Your task to perform on an android device: toggle translation in the chrome app Image 0: 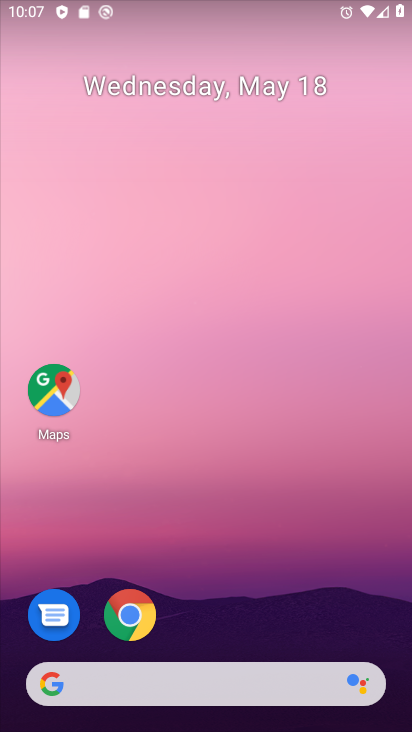
Step 0: click (126, 615)
Your task to perform on an android device: toggle translation in the chrome app Image 1: 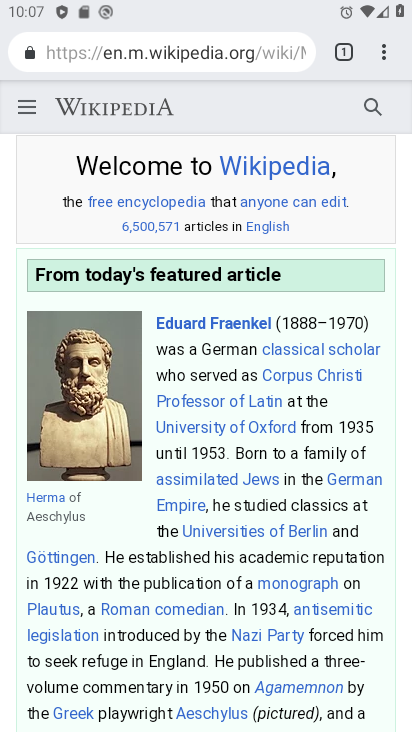
Step 1: click (386, 47)
Your task to perform on an android device: toggle translation in the chrome app Image 2: 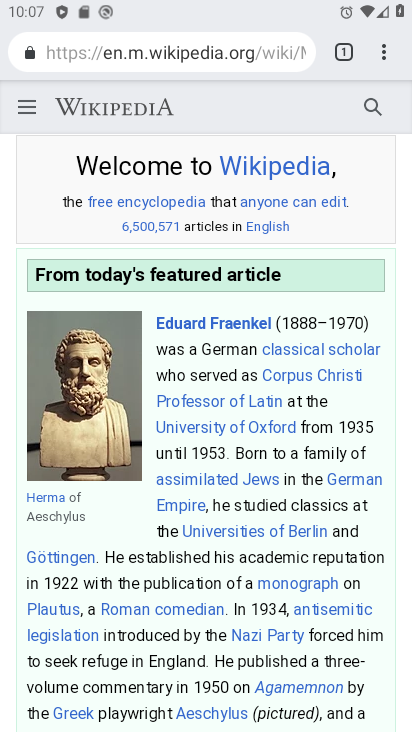
Step 2: click (384, 50)
Your task to perform on an android device: toggle translation in the chrome app Image 3: 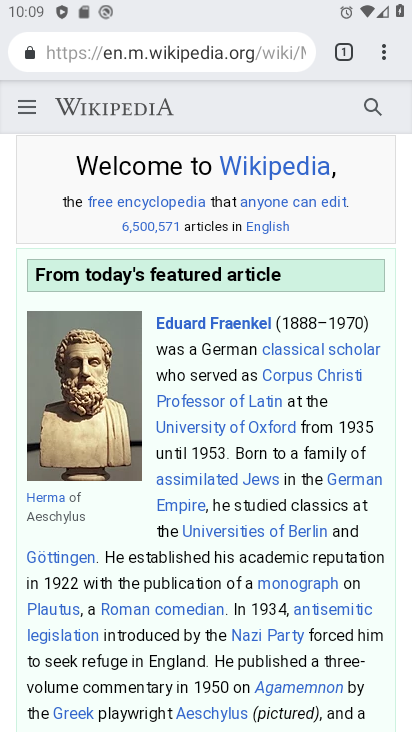
Step 3: click (383, 52)
Your task to perform on an android device: toggle translation in the chrome app Image 4: 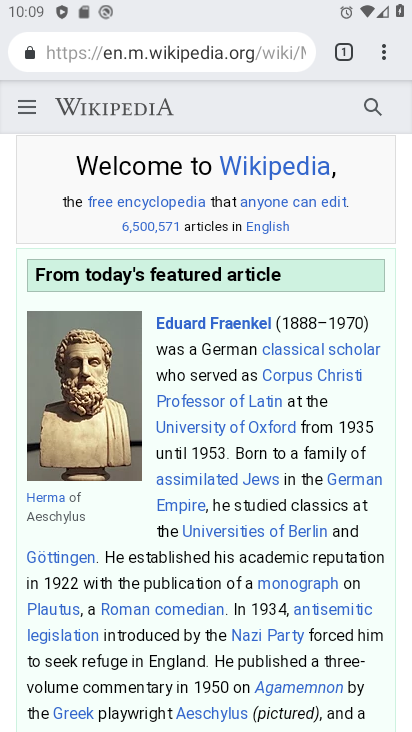
Step 4: click (381, 46)
Your task to perform on an android device: toggle translation in the chrome app Image 5: 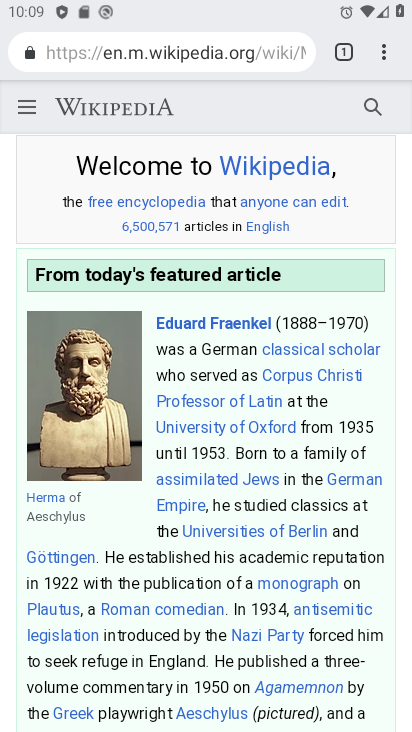
Step 5: click (385, 50)
Your task to perform on an android device: toggle translation in the chrome app Image 6: 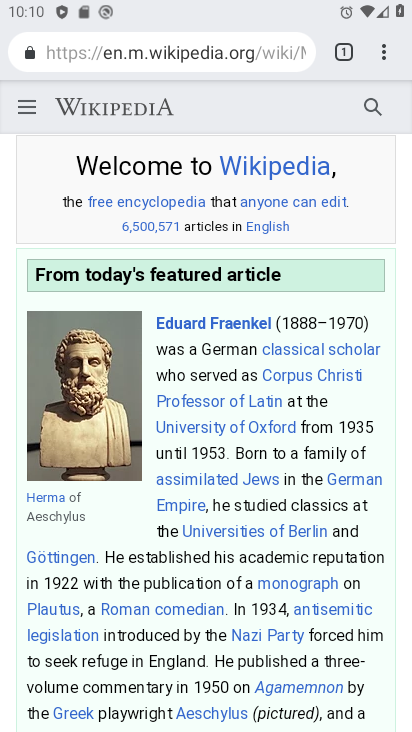
Step 6: click (392, 49)
Your task to perform on an android device: toggle translation in the chrome app Image 7: 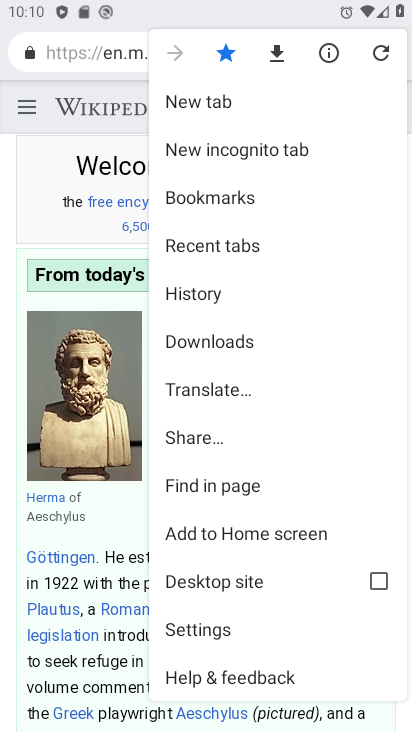
Step 7: click (185, 629)
Your task to perform on an android device: toggle translation in the chrome app Image 8: 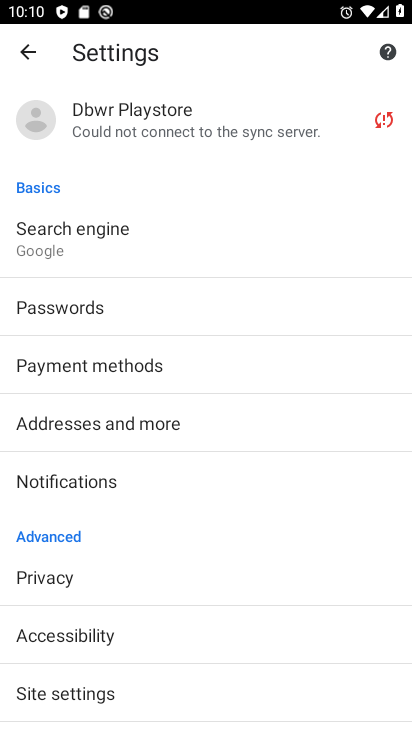
Step 8: drag from (67, 706) to (90, 407)
Your task to perform on an android device: toggle translation in the chrome app Image 9: 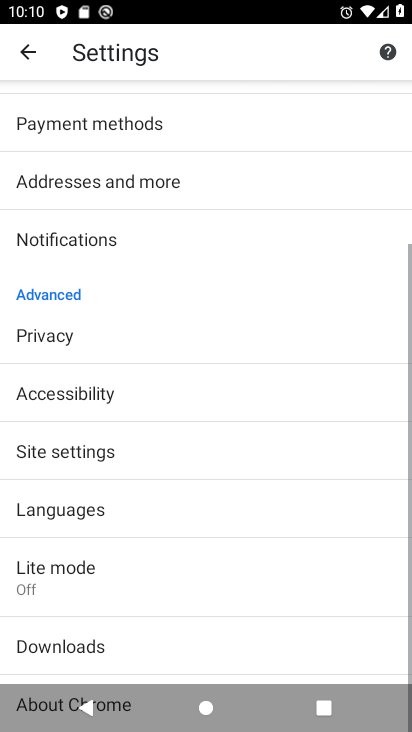
Step 9: click (56, 507)
Your task to perform on an android device: toggle translation in the chrome app Image 10: 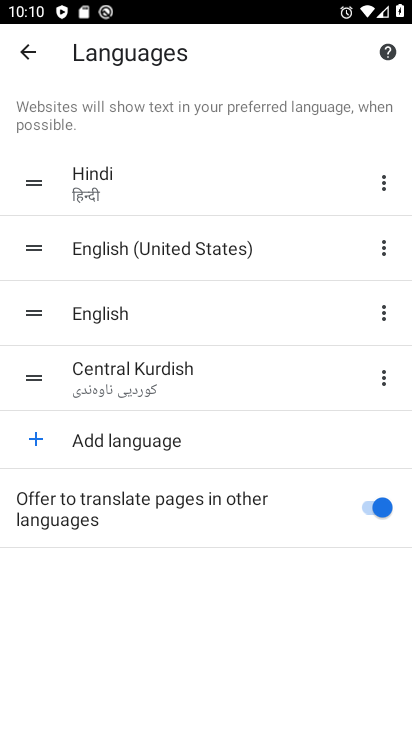
Step 10: click (365, 507)
Your task to perform on an android device: toggle translation in the chrome app Image 11: 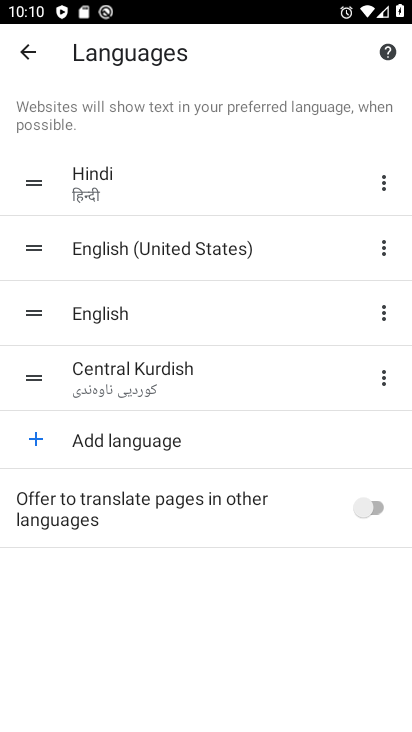
Step 11: task complete